Your task to perform on an android device: Open location settings Image 0: 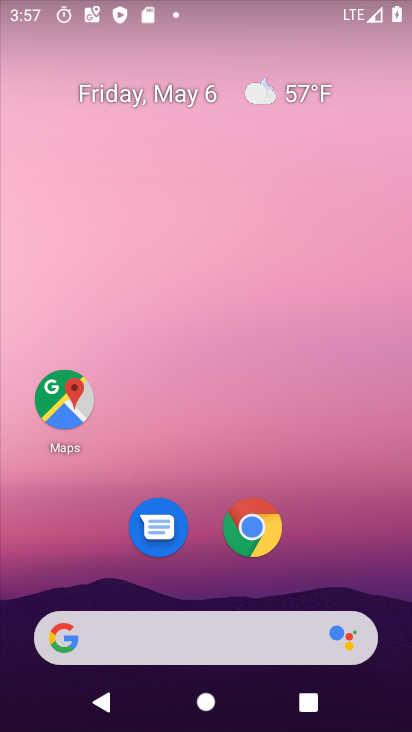
Step 0: drag from (296, 566) to (204, 63)
Your task to perform on an android device: Open location settings Image 1: 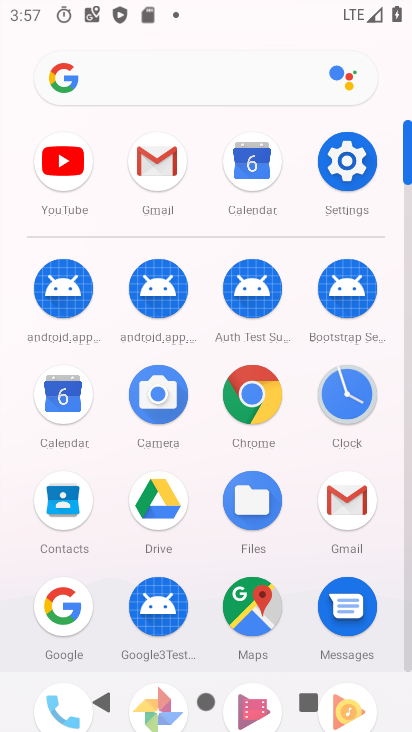
Step 1: click (365, 162)
Your task to perform on an android device: Open location settings Image 2: 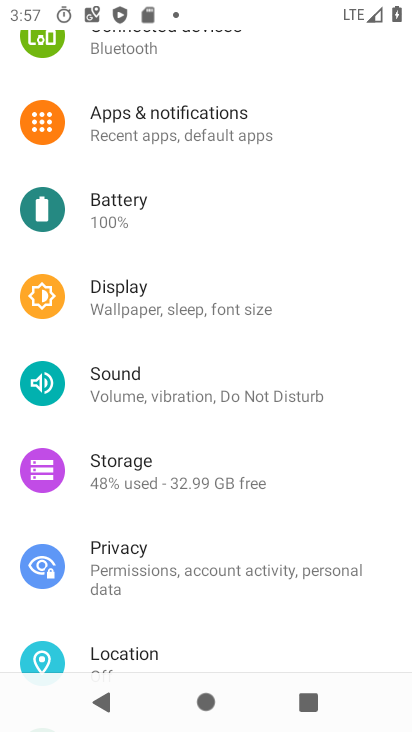
Step 2: click (137, 654)
Your task to perform on an android device: Open location settings Image 3: 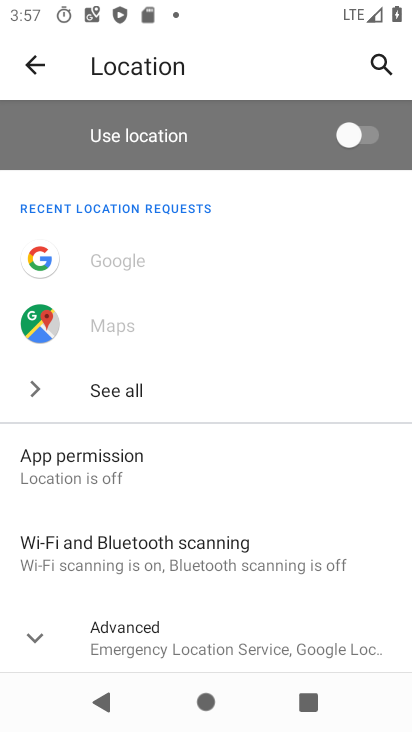
Step 3: task complete